Your task to perform on an android device: Open privacy settings Image 0: 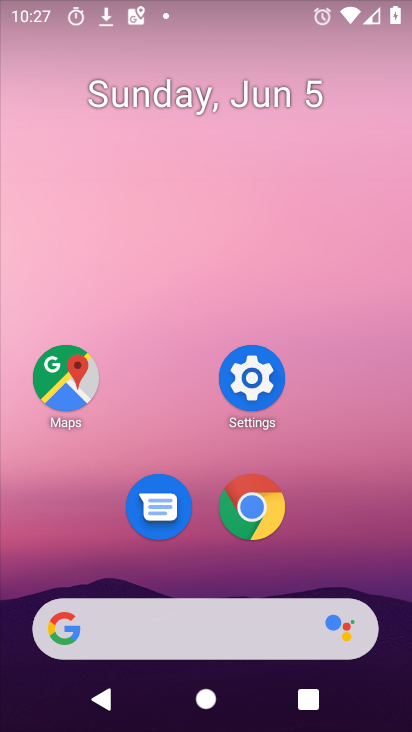
Step 0: drag from (248, 661) to (352, 225)
Your task to perform on an android device: Open privacy settings Image 1: 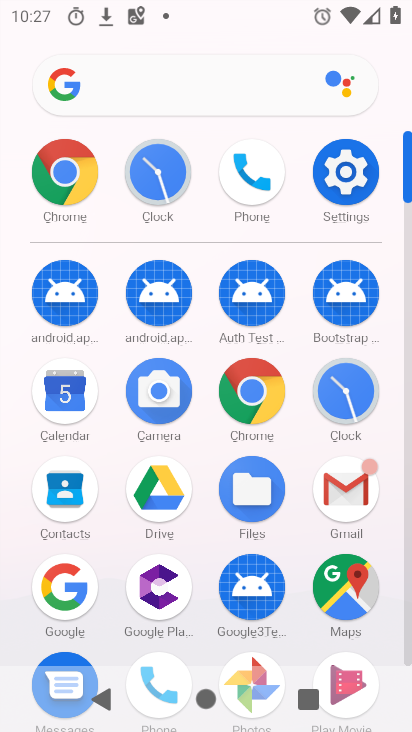
Step 1: click (360, 187)
Your task to perform on an android device: Open privacy settings Image 2: 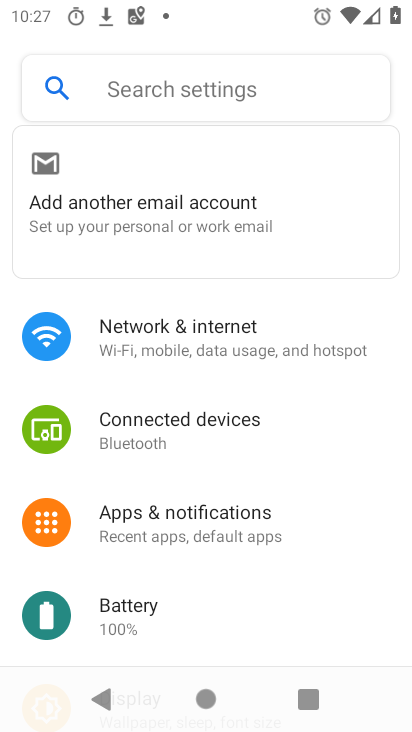
Step 2: drag from (268, 517) to (282, 310)
Your task to perform on an android device: Open privacy settings Image 3: 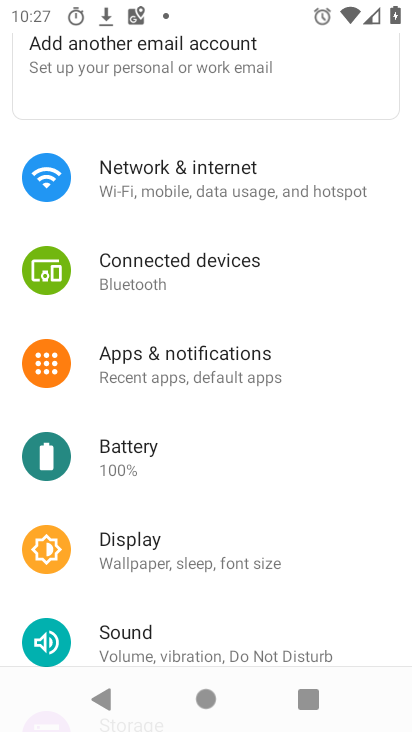
Step 3: drag from (190, 588) to (209, 346)
Your task to perform on an android device: Open privacy settings Image 4: 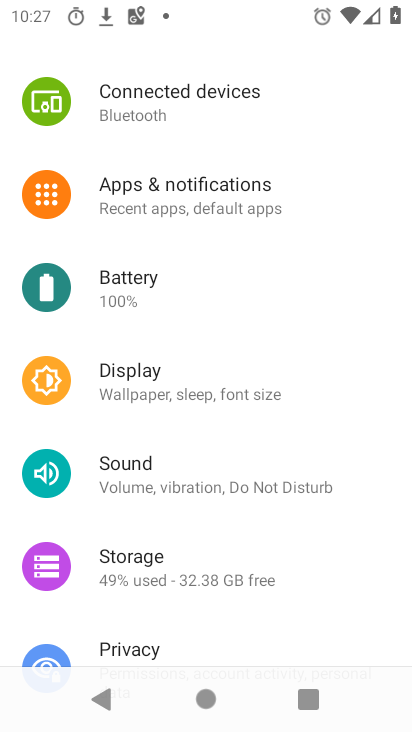
Step 4: click (164, 643)
Your task to perform on an android device: Open privacy settings Image 5: 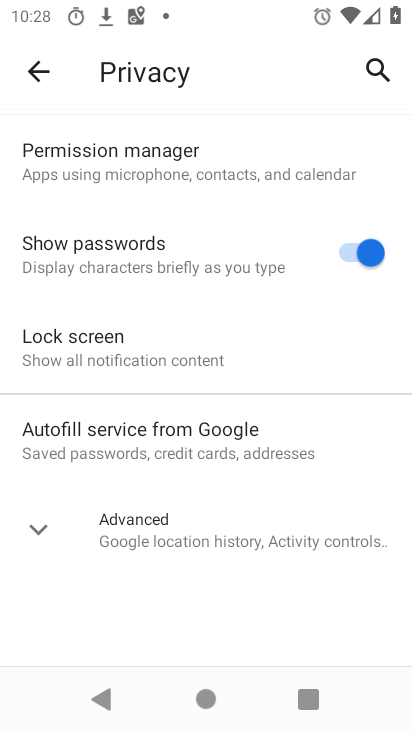
Step 5: task complete